Your task to perform on an android device: What's on my calendar tomorrow? Image 0: 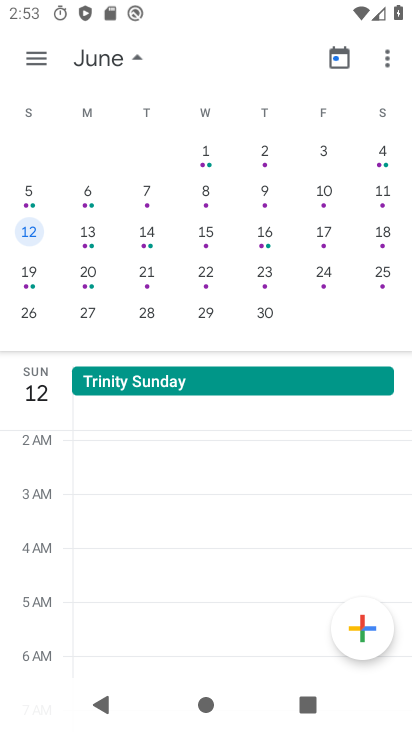
Step 0: press home button
Your task to perform on an android device: What's on my calendar tomorrow? Image 1: 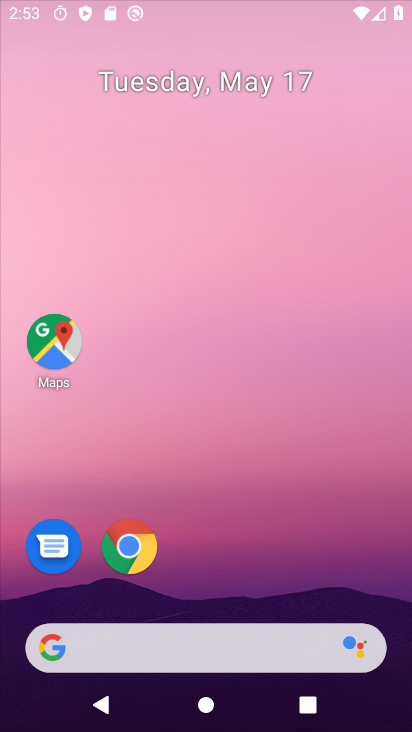
Step 1: drag from (217, 633) to (264, 241)
Your task to perform on an android device: What's on my calendar tomorrow? Image 2: 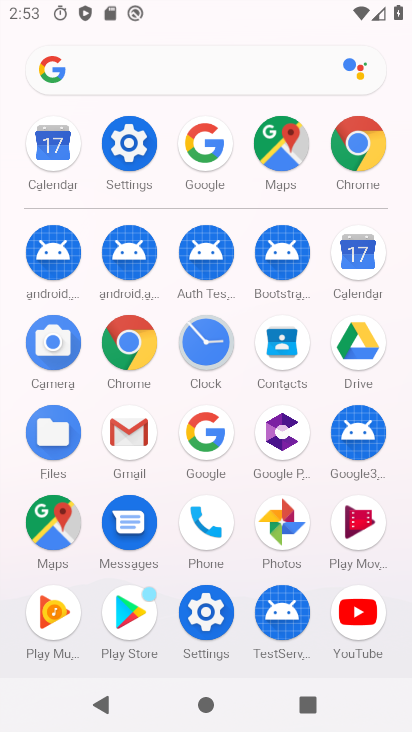
Step 2: drag from (222, 501) to (265, 336)
Your task to perform on an android device: What's on my calendar tomorrow? Image 3: 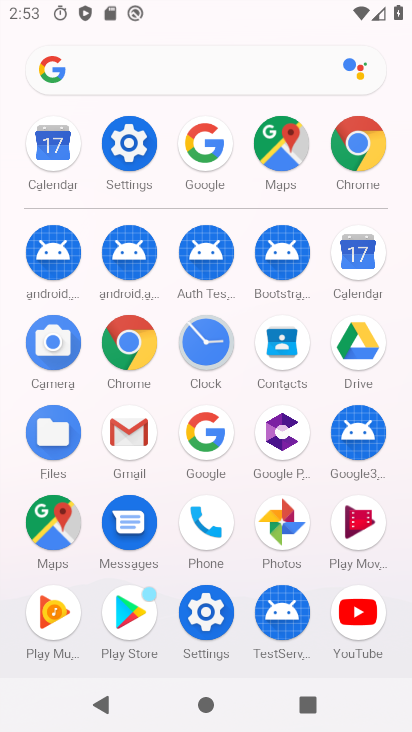
Step 3: click (352, 272)
Your task to perform on an android device: What's on my calendar tomorrow? Image 4: 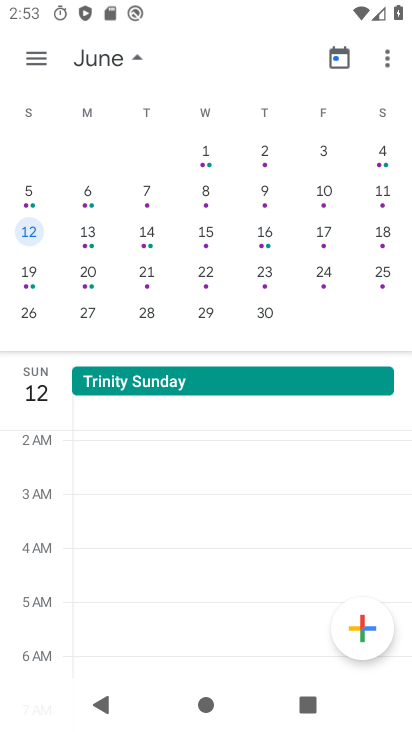
Step 4: drag from (64, 219) to (409, 210)
Your task to perform on an android device: What's on my calendar tomorrow? Image 5: 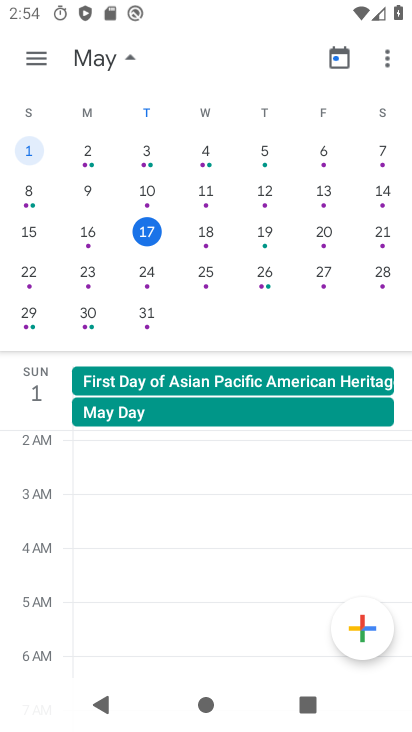
Step 5: click (215, 231)
Your task to perform on an android device: What's on my calendar tomorrow? Image 6: 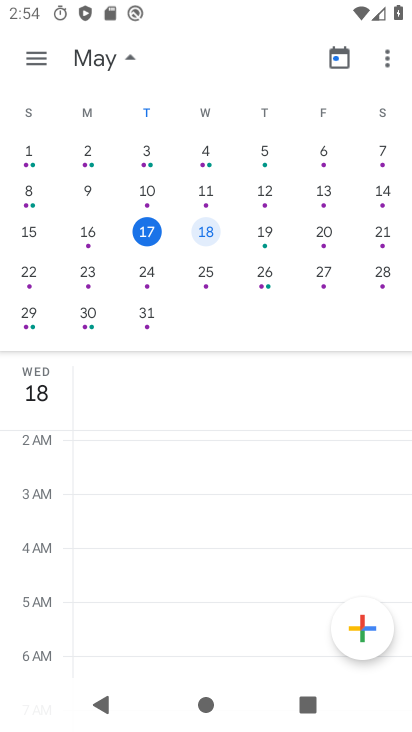
Step 6: task complete